Your task to perform on an android device: delete a single message in the gmail app Image 0: 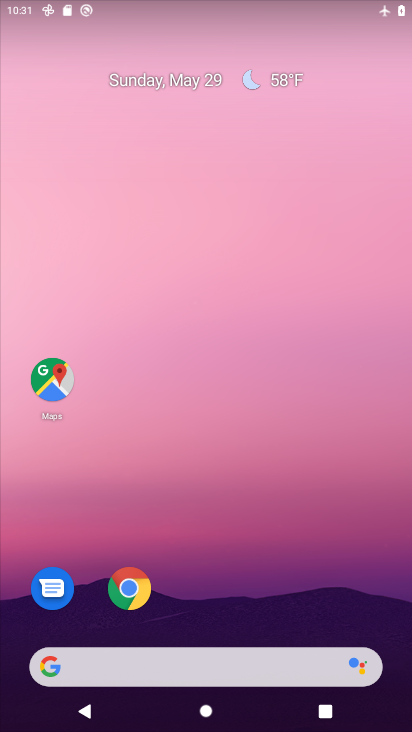
Step 0: drag from (258, 560) to (236, 212)
Your task to perform on an android device: delete a single message in the gmail app Image 1: 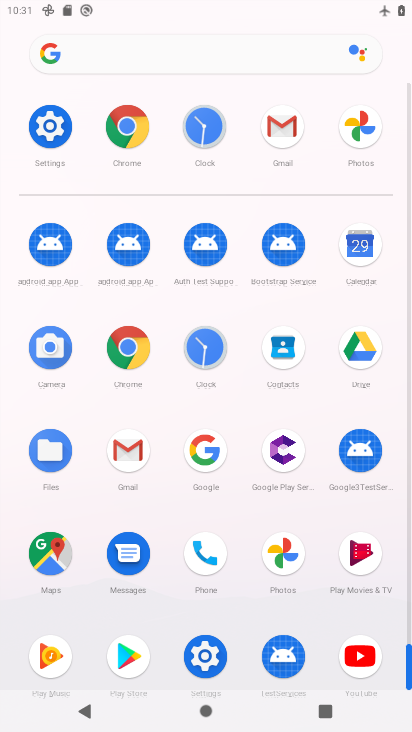
Step 1: click (127, 445)
Your task to perform on an android device: delete a single message in the gmail app Image 2: 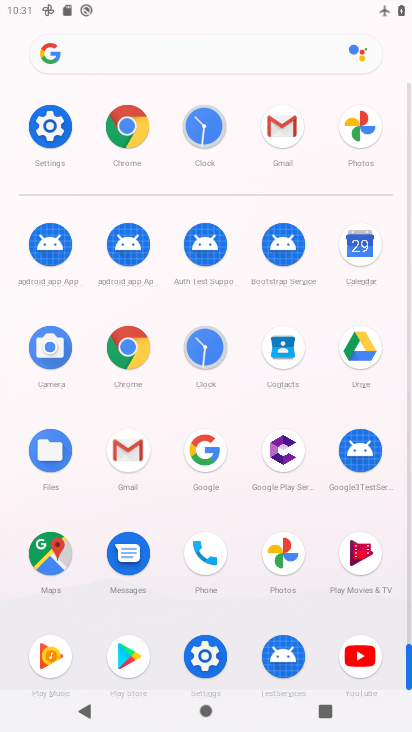
Step 2: click (128, 444)
Your task to perform on an android device: delete a single message in the gmail app Image 3: 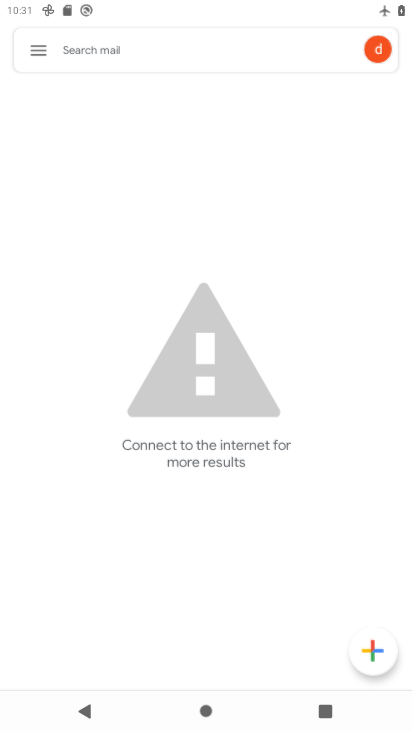
Step 3: click (130, 444)
Your task to perform on an android device: delete a single message in the gmail app Image 4: 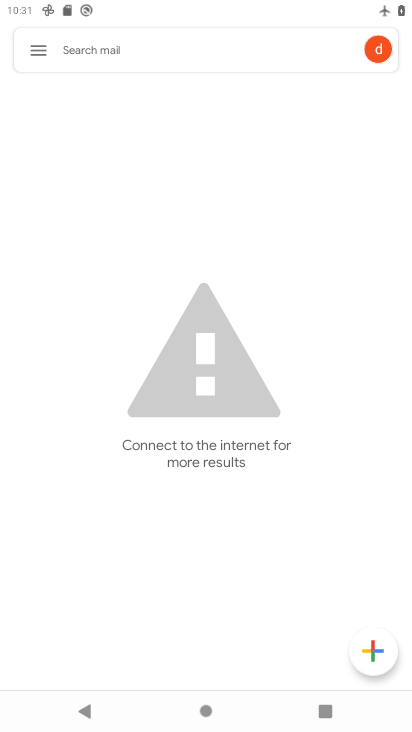
Step 4: click (40, 53)
Your task to perform on an android device: delete a single message in the gmail app Image 5: 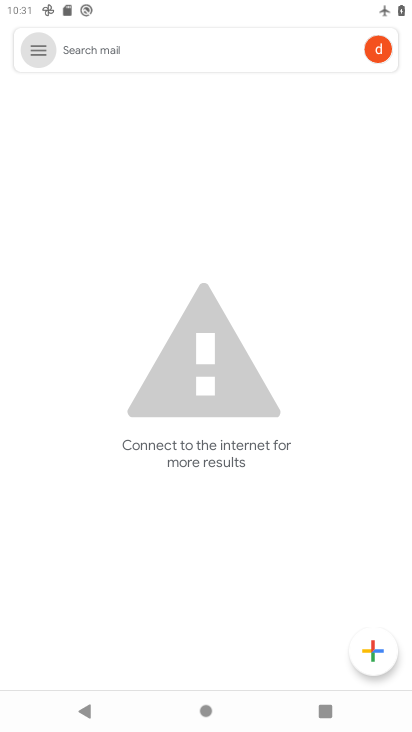
Step 5: click (40, 53)
Your task to perform on an android device: delete a single message in the gmail app Image 6: 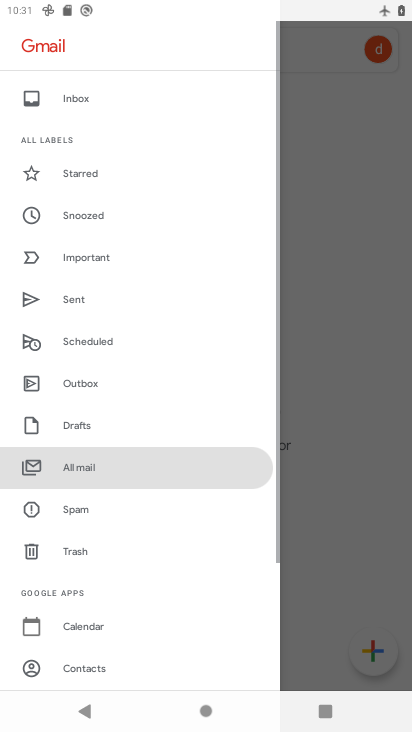
Step 6: click (40, 53)
Your task to perform on an android device: delete a single message in the gmail app Image 7: 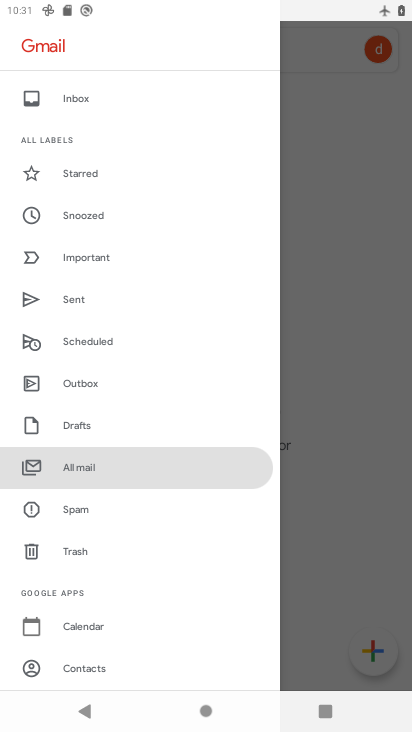
Step 7: click (94, 471)
Your task to perform on an android device: delete a single message in the gmail app Image 8: 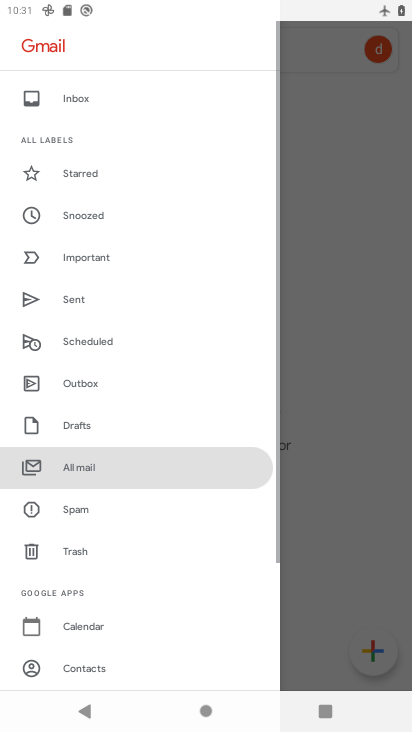
Step 8: click (94, 471)
Your task to perform on an android device: delete a single message in the gmail app Image 9: 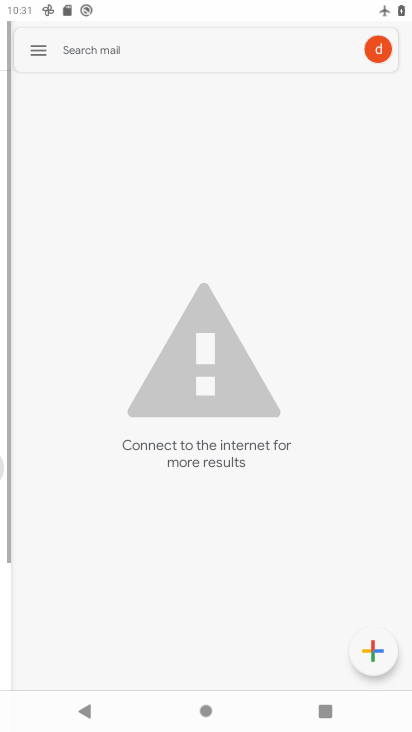
Step 9: click (94, 471)
Your task to perform on an android device: delete a single message in the gmail app Image 10: 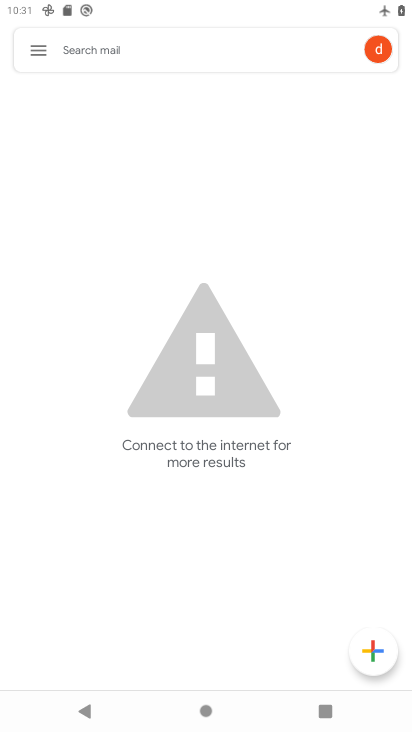
Step 10: click (93, 469)
Your task to perform on an android device: delete a single message in the gmail app Image 11: 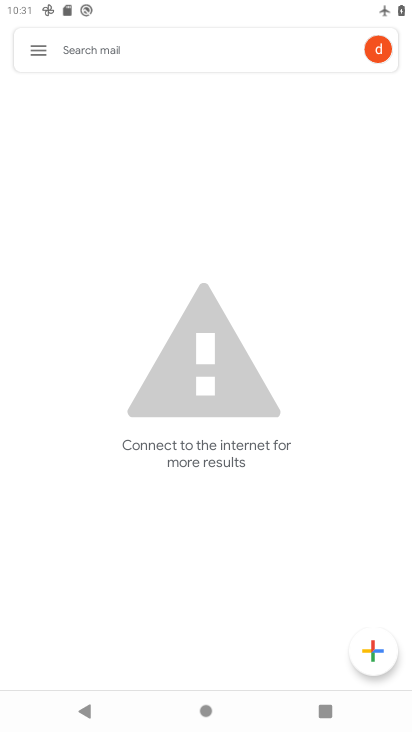
Step 11: task complete